Your task to perform on an android device: empty trash in the gmail app Image 0: 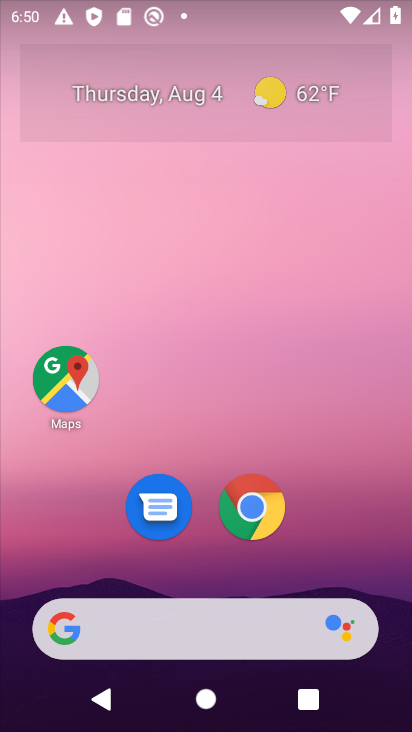
Step 0: drag from (403, 584) to (274, 90)
Your task to perform on an android device: empty trash in the gmail app Image 1: 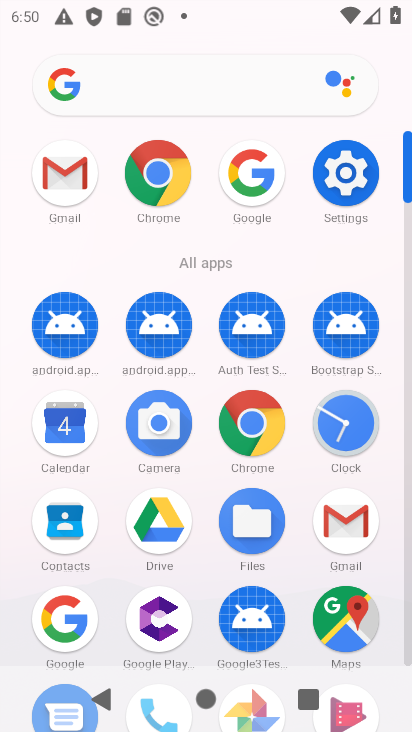
Step 1: click (60, 184)
Your task to perform on an android device: empty trash in the gmail app Image 2: 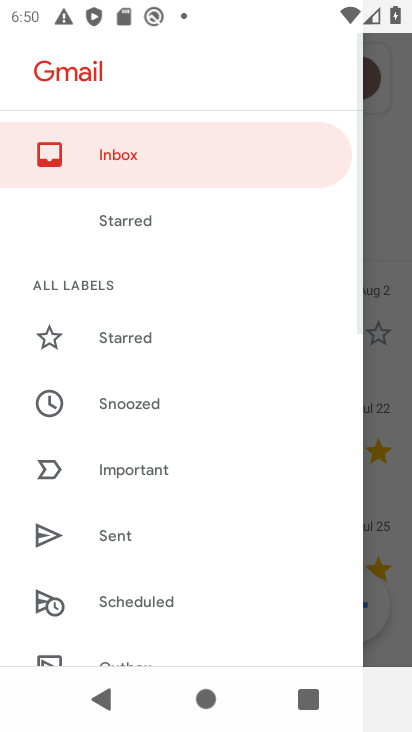
Step 2: drag from (109, 602) to (201, 65)
Your task to perform on an android device: empty trash in the gmail app Image 3: 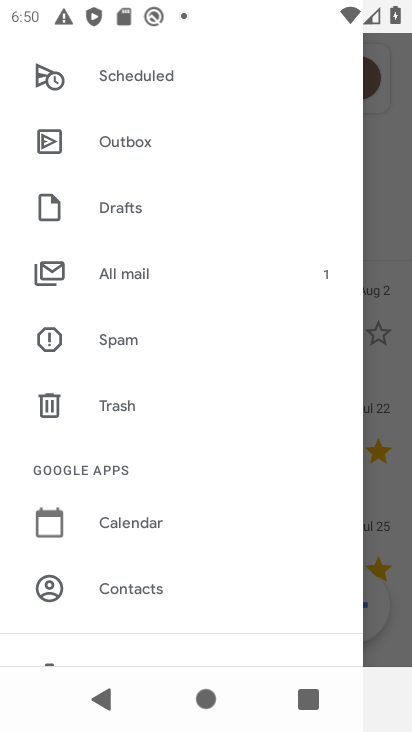
Step 3: click (116, 400)
Your task to perform on an android device: empty trash in the gmail app Image 4: 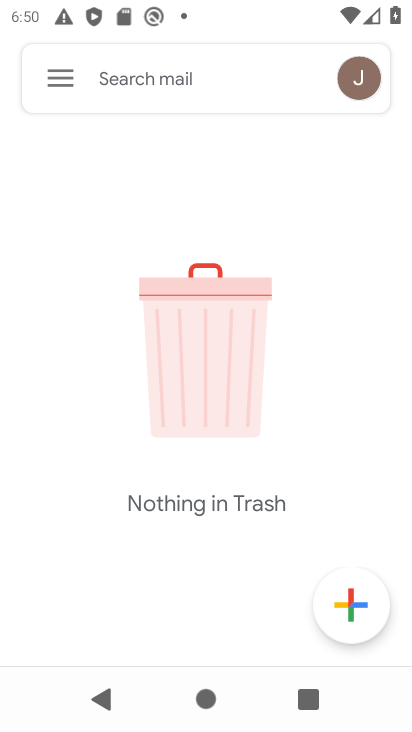
Step 4: task complete